Your task to perform on an android device: change timer sound Image 0: 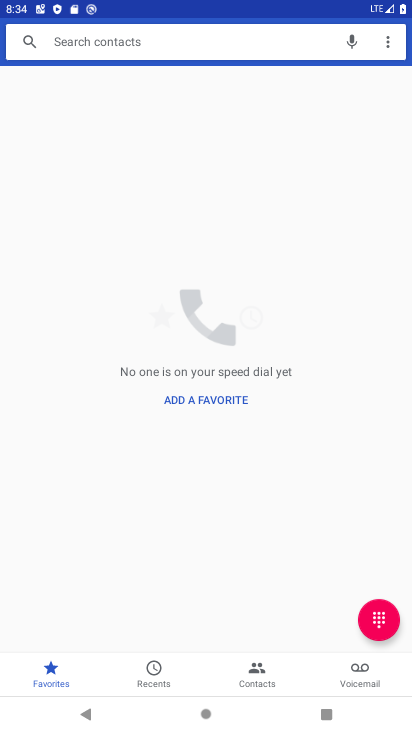
Step 0: press home button
Your task to perform on an android device: change timer sound Image 1: 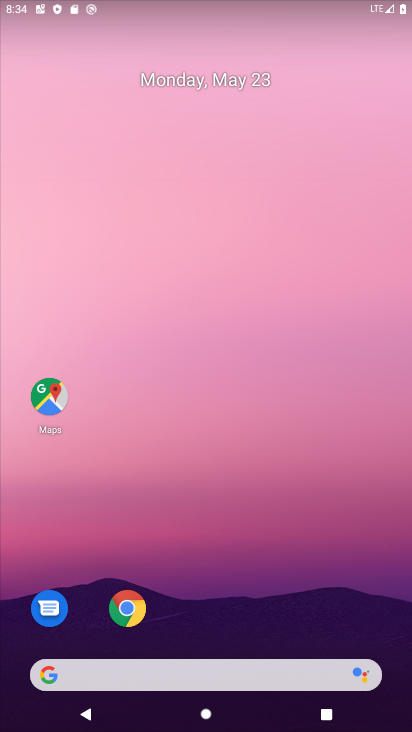
Step 1: drag from (206, 665) to (189, 120)
Your task to perform on an android device: change timer sound Image 2: 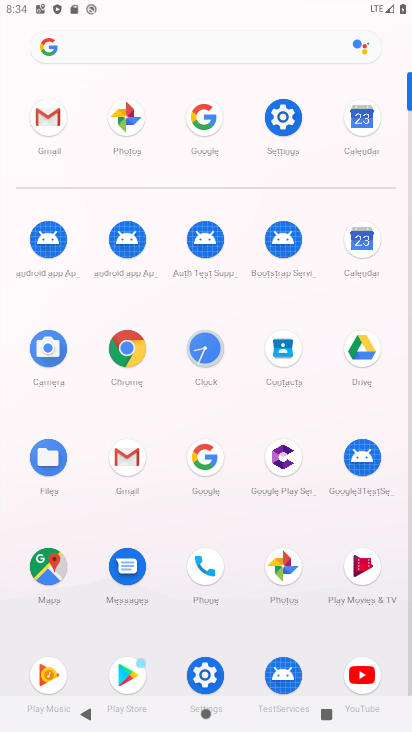
Step 2: click (205, 361)
Your task to perform on an android device: change timer sound Image 3: 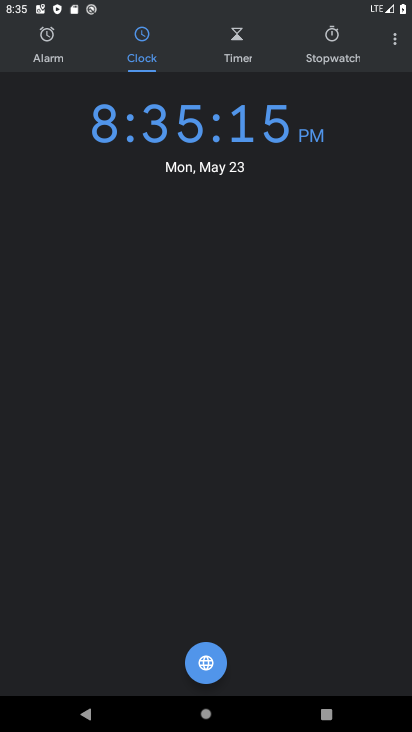
Step 3: click (400, 51)
Your task to perform on an android device: change timer sound Image 4: 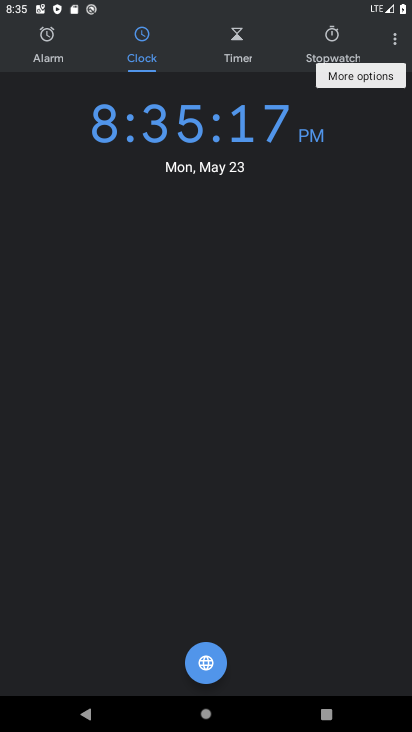
Step 4: click (400, 51)
Your task to perform on an android device: change timer sound Image 5: 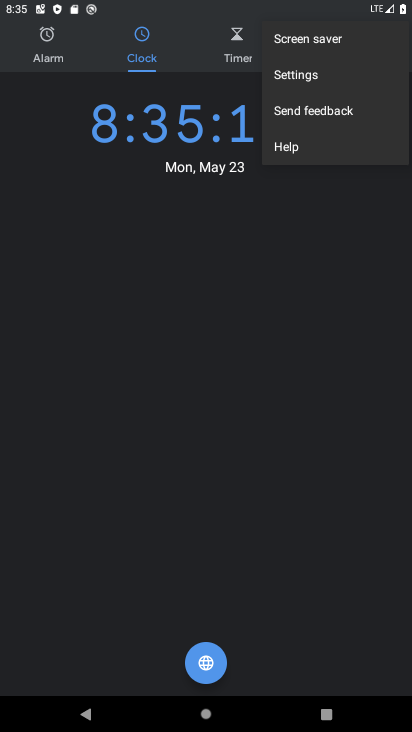
Step 5: click (328, 85)
Your task to perform on an android device: change timer sound Image 6: 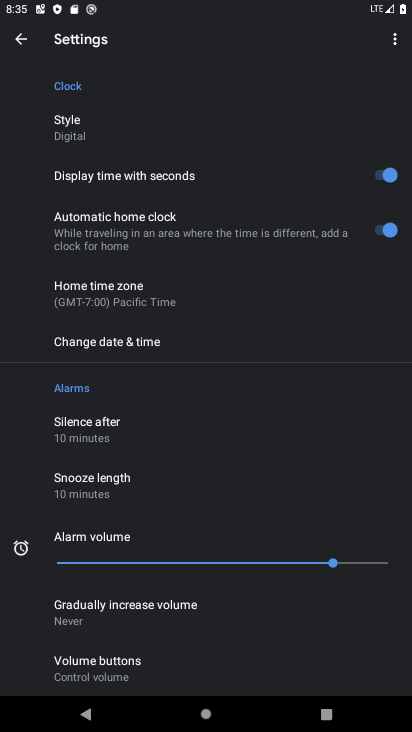
Step 6: drag from (143, 475) to (153, 95)
Your task to perform on an android device: change timer sound Image 7: 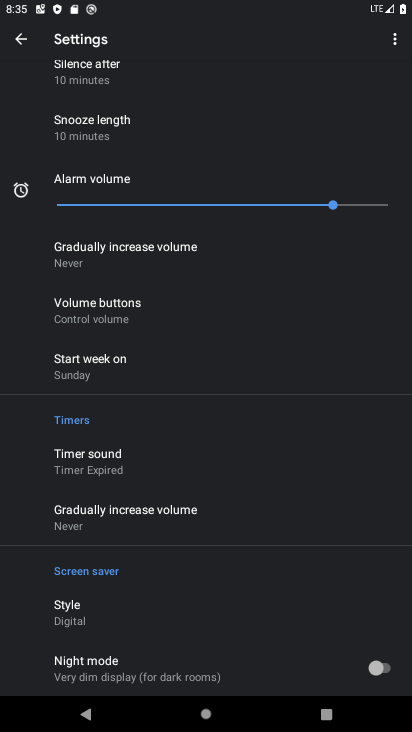
Step 7: click (149, 460)
Your task to perform on an android device: change timer sound Image 8: 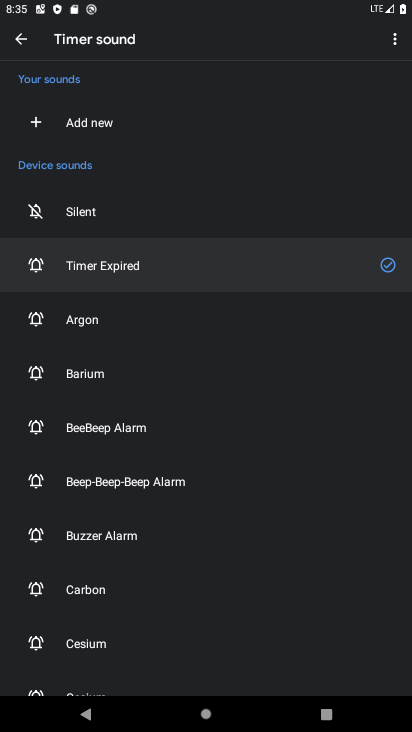
Step 8: click (115, 644)
Your task to perform on an android device: change timer sound Image 9: 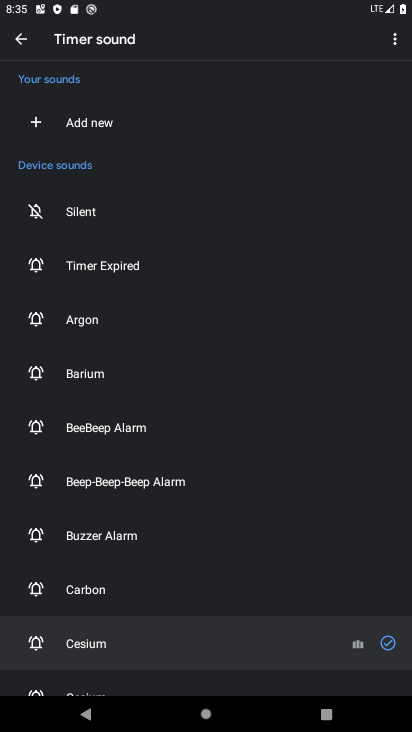
Step 9: task complete